Your task to perform on an android device: Open maps Image 0: 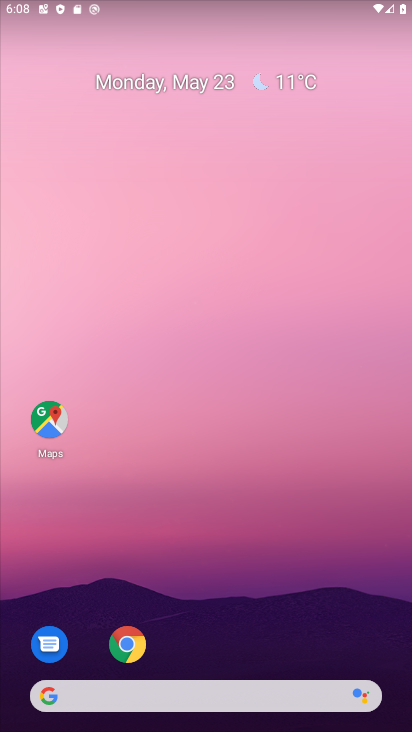
Step 0: click (48, 436)
Your task to perform on an android device: Open maps Image 1: 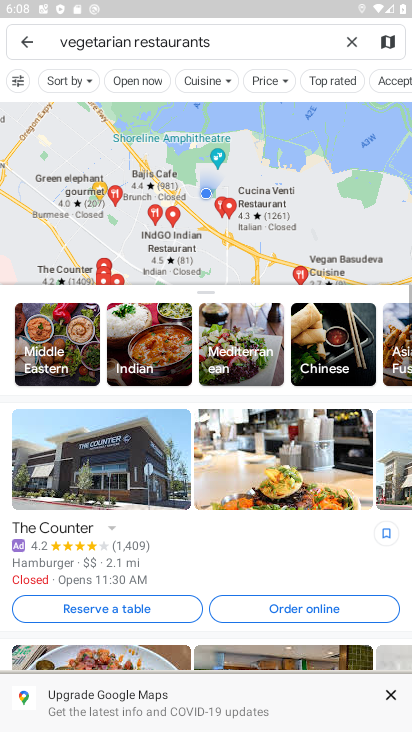
Step 1: task complete